Your task to perform on an android device: remove spam from my inbox in the gmail app Image 0: 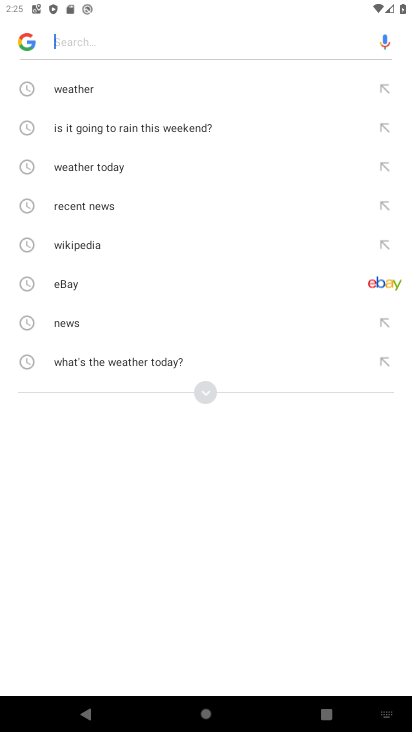
Step 0: press home button
Your task to perform on an android device: remove spam from my inbox in the gmail app Image 1: 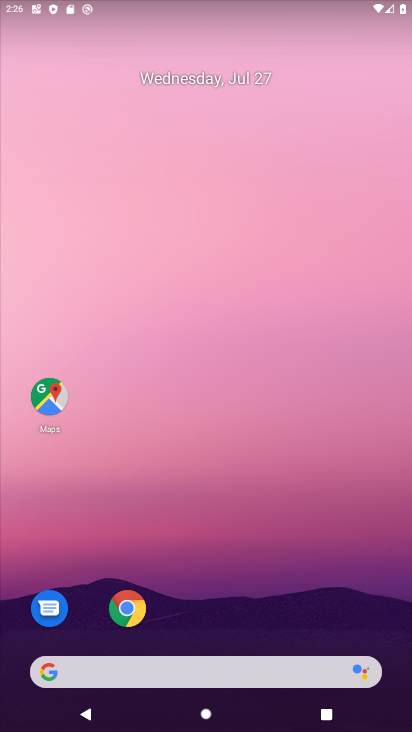
Step 1: drag from (208, 619) to (205, 99)
Your task to perform on an android device: remove spam from my inbox in the gmail app Image 2: 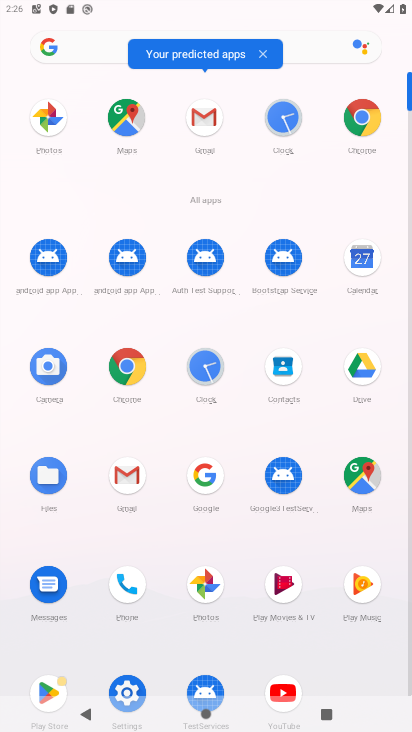
Step 2: click (200, 120)
Your task to perform on an android device: remove spam from my inbox in the gmail app Image 3: 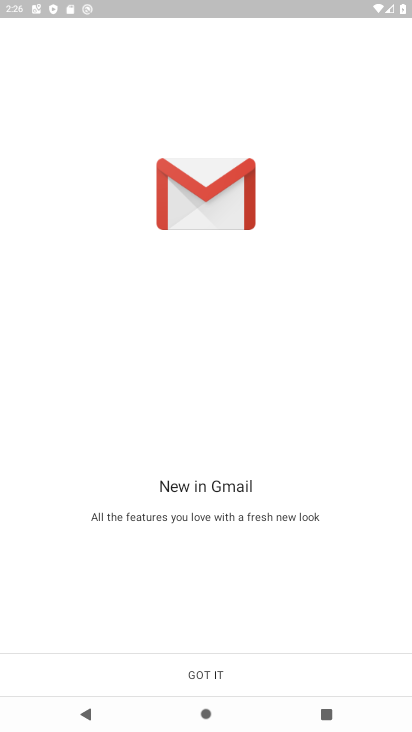
Step 3: click (209, 677)
Your task to perform on an android device: remove spam from my inbox in the gmail app Image 4: 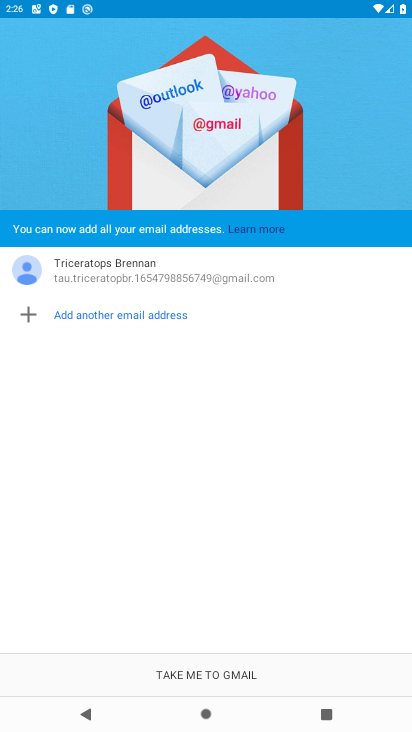
Step 4: click (209, 677)
Your task to perform on an android device: remove spam from my inbox in the gmail app Image 5: 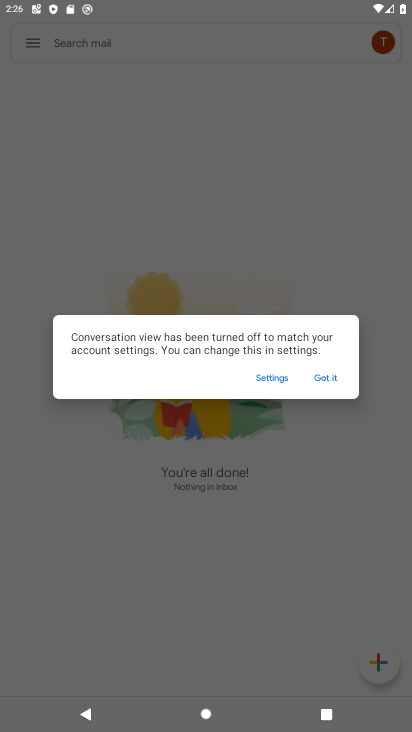
Step 5: click (324, 387)
Your task to perform on an android device: remove spam from my inbox in the gmail app Image 6: 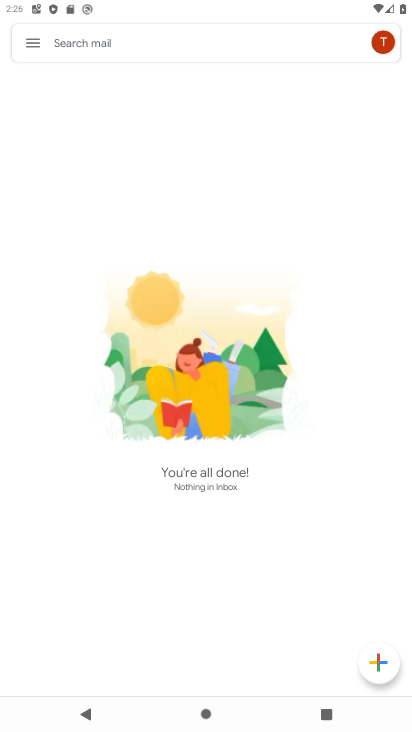
Step 6: click (32, 43)
Your task to perform on an android device: remove spam from my inbox in the gmail app Image 7: 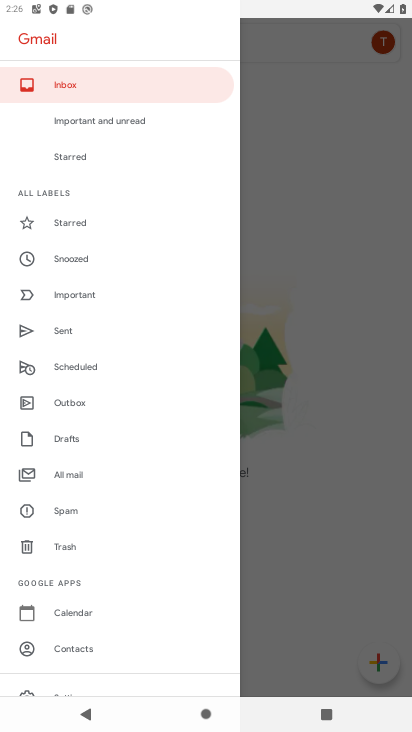
Step 7: click (99, 517)
Your task to perform on an android device: remove spam from my inbox in the gmail app Image 8: 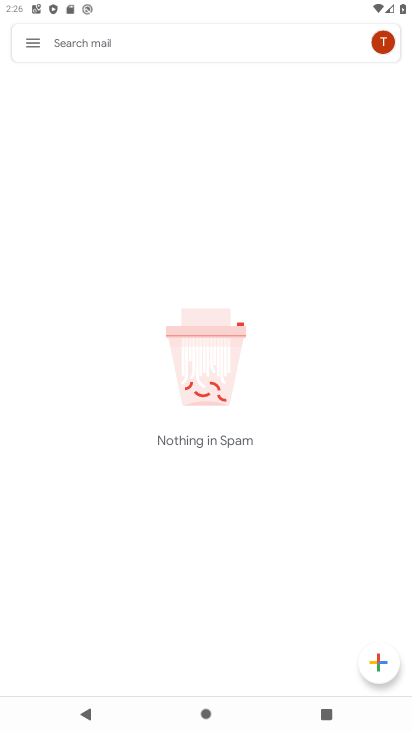
Step 8: click (30, 41)
Your task to perform on an android device: remove spam from my inbox in the gmail app Image 9: 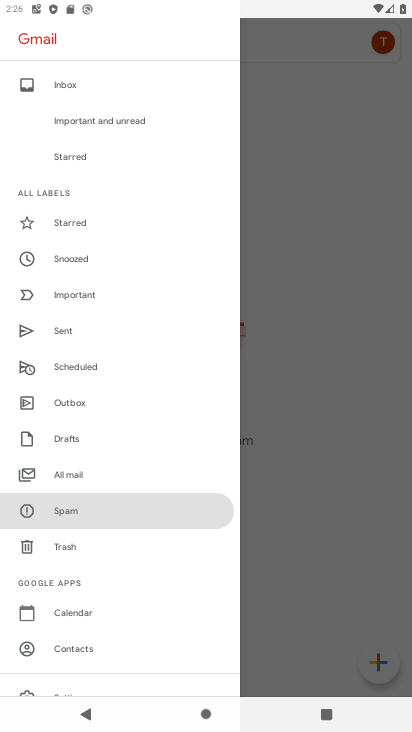
Step 9: click (170, 524)
Your task to perform on an android device: remove spam from my inbox in the gmail app Image 10: 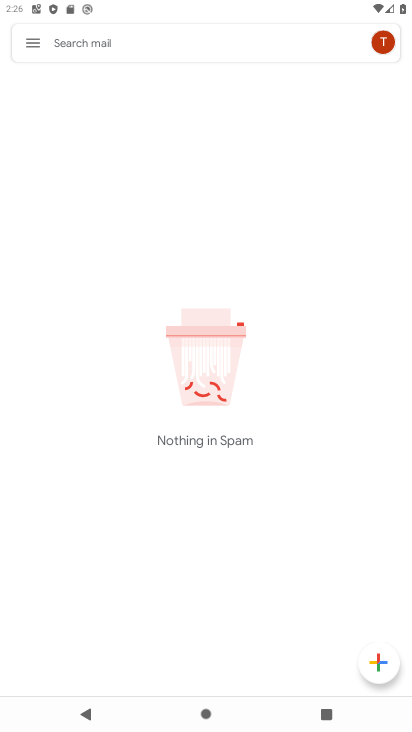
Step 10: task complete